Your task to perform on an android device: Show me popular games on the Play Store Image 0: 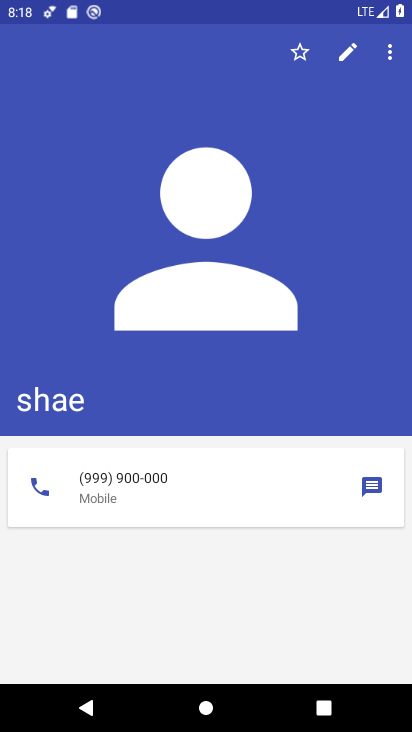
Step 0: press home button
Your task to perform on an android device: Show me popular games on the Play Store Image 1: 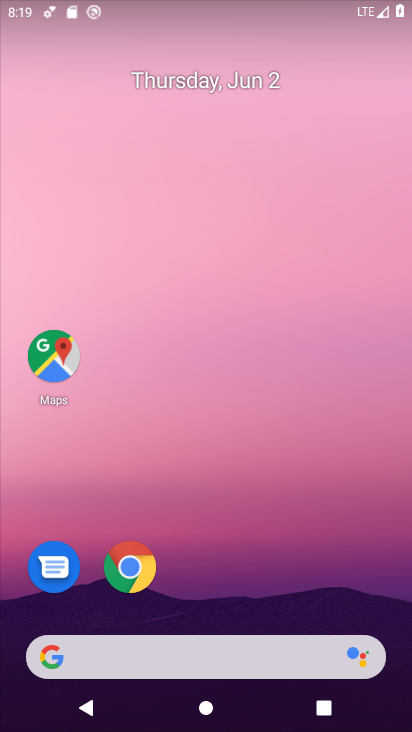
Step 1: drag from (125, 622) to (275, 119)
Your task to perform on an android device: Show me popular games on the Play Store Image 2: 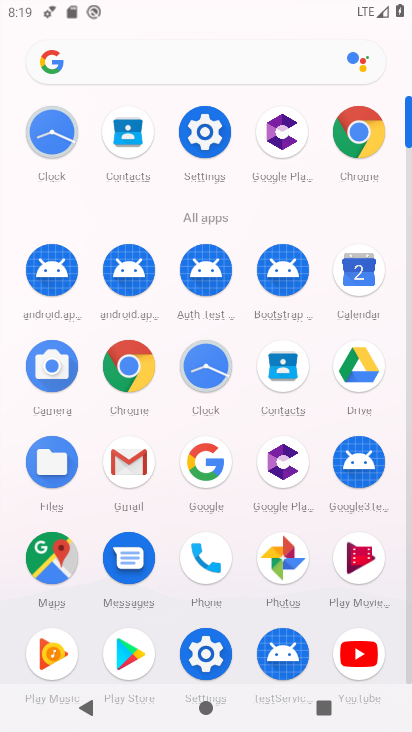
Step 2: click (121, 656)
Your task to perform on an android device: Show me popular games on the Play Store Image 3: 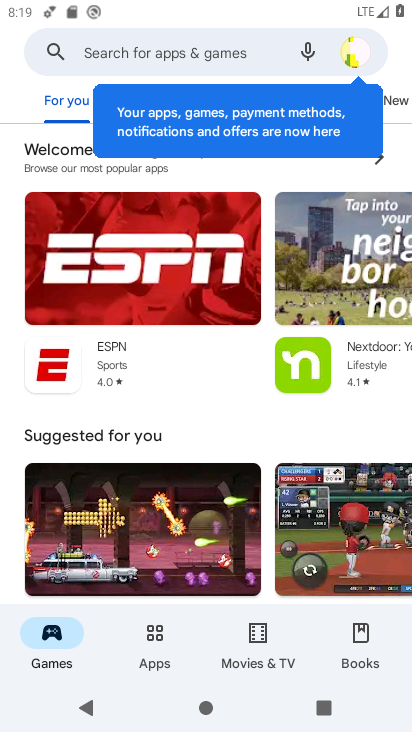
Step 3: drag from (230, 312) to (329, 86)
Your task to perform on an android device: Show me popular games on the Play Store Image 4: 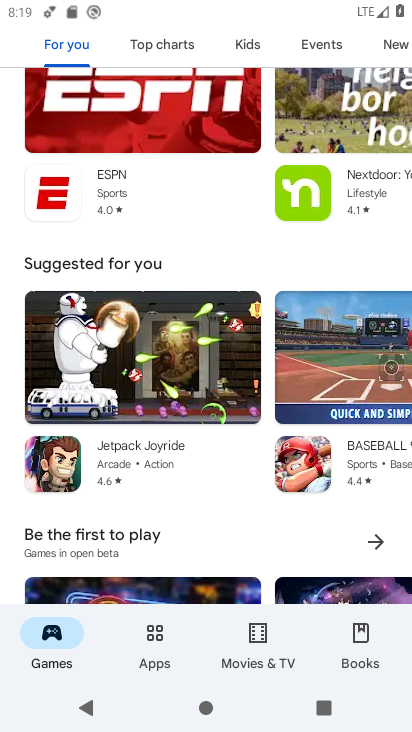
Step 4: drag from (205, 527) to (323, 55)
Your task to perform on an android device: Show me popular games on the Play Store Image 5: 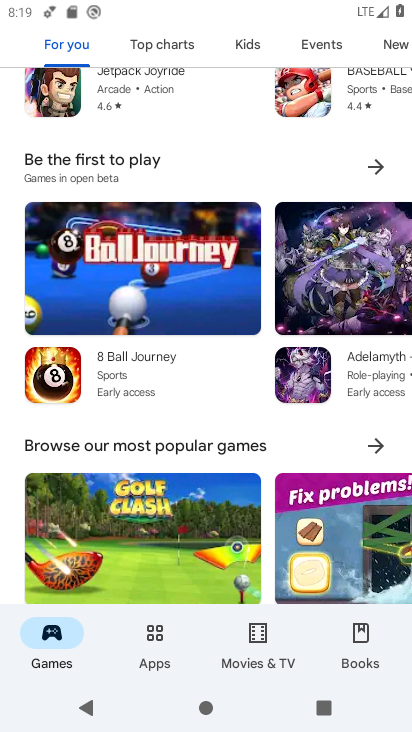
Step 5: drag from (242, 532) to (291, 304)
Your task to perform on an android device: Show me popular games on the Play Store Image 6: 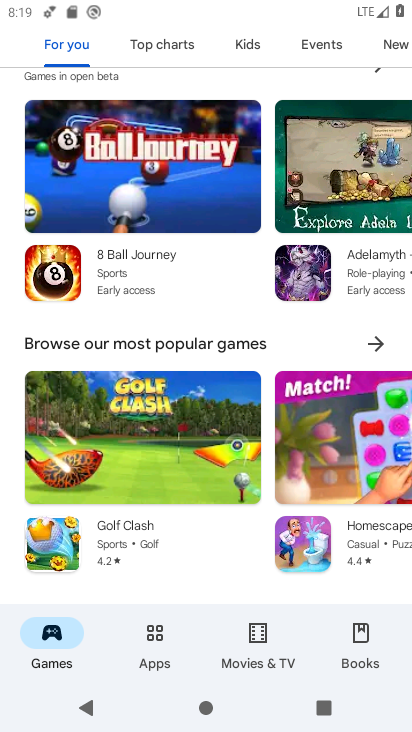
Step 6: click (388, 345)
Your task to perform on an android device: Show me popular games on the Play Store Image 7: 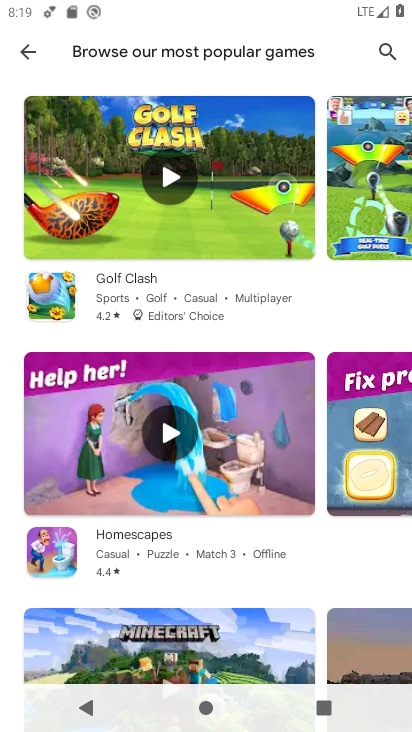
Step 7: task complete